Your task to perform on an android device: turn off priority inbox in the gmail app Image 0: 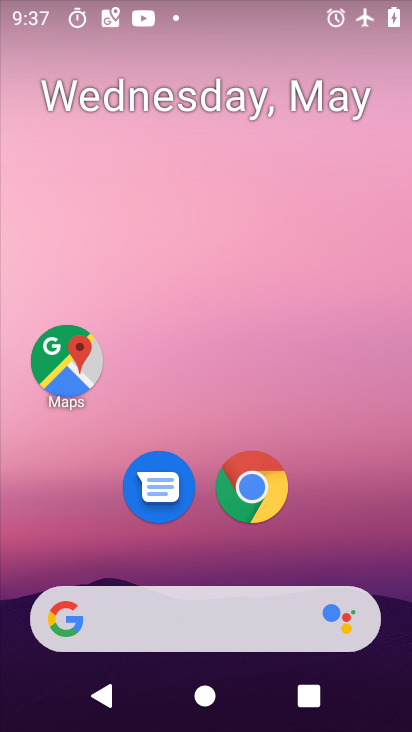
Step 0: drag from (219, 564) to (269, 86)
Your task to perform on an android device: turn off priority inbox in the gmail app Image 1: 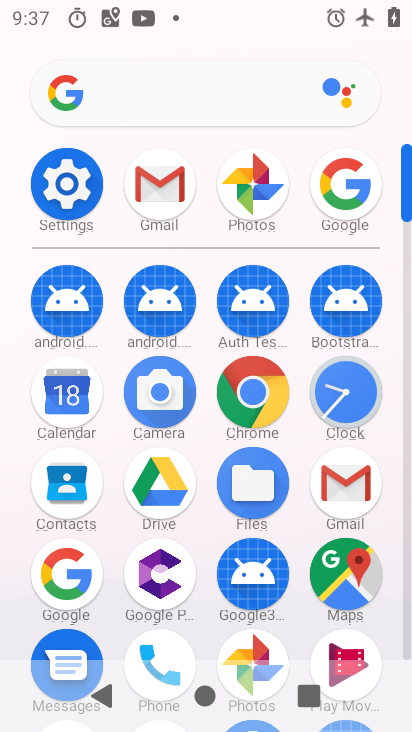
Step 1: click (134, 199)
Your task to perform on an android device: turn off priority inbox in the gmail app Image 2: 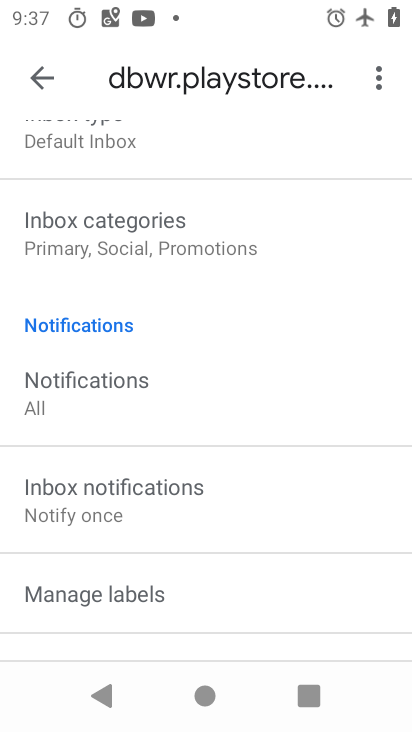
Step 2: task complete